Your task to perform on an android device: turn off data saver in the chrome app Image 0: 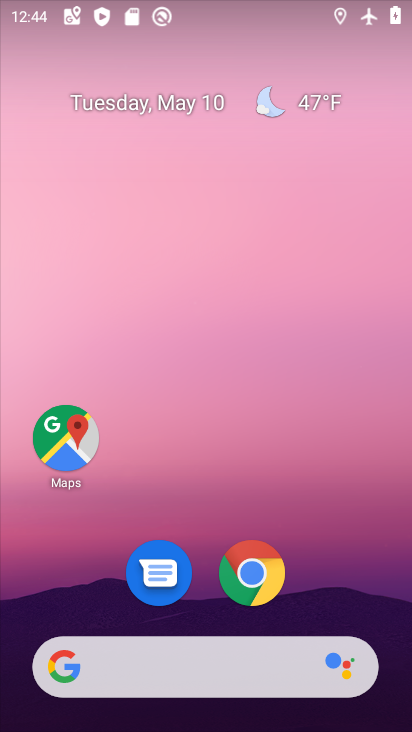
Step 0: click (329, 240)
Your task to perform on an android device: turn off data saver in the chrome app Image 1: 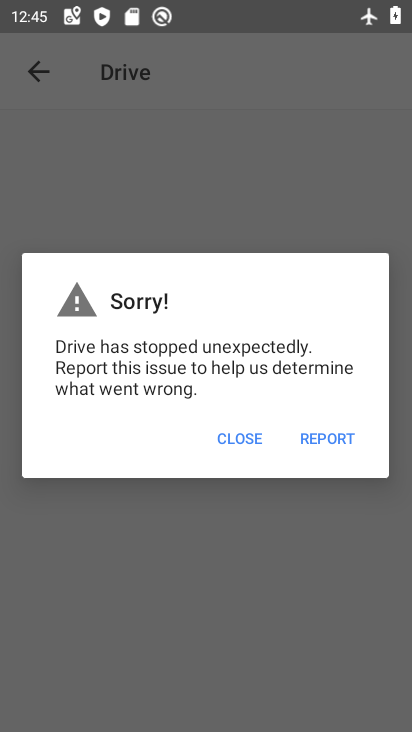
Step 1: press home button
Your task to perform on an android device: turn off data saver in the chrome app Image 2: 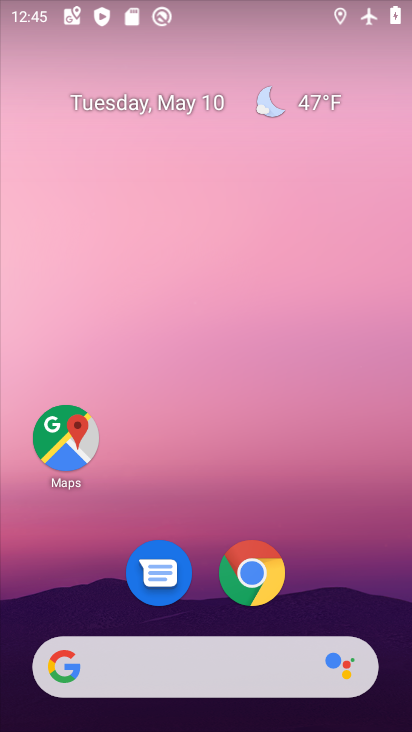
Step 2: drag from (187, 563) to (292, 221)
Your task to perform on an android device: turn off data saver in the chrome app Image 3: 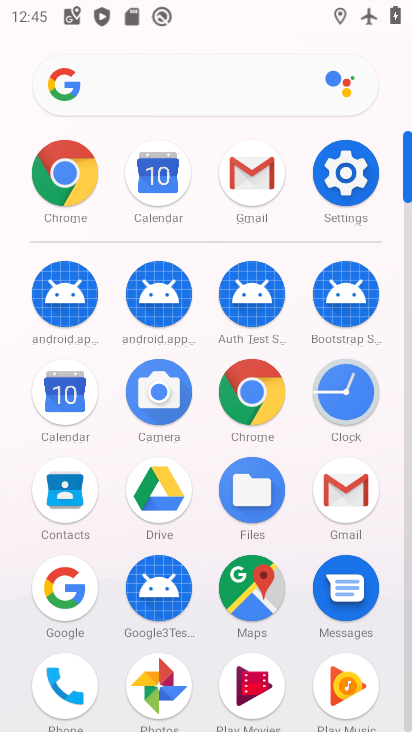
Step 3: click (257, 385)
Your task to perform on an android device: turn off data saver in the chrome app Image 4: 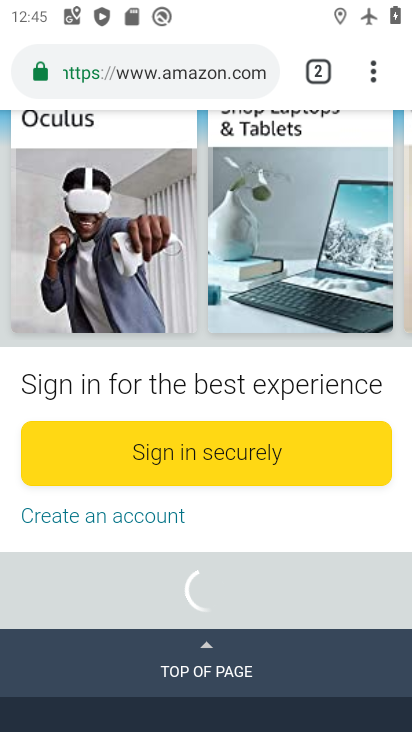
Step 4: click (375, 61)
Your task to perform on an android device: turn off data saver in the chrome app Image 5: 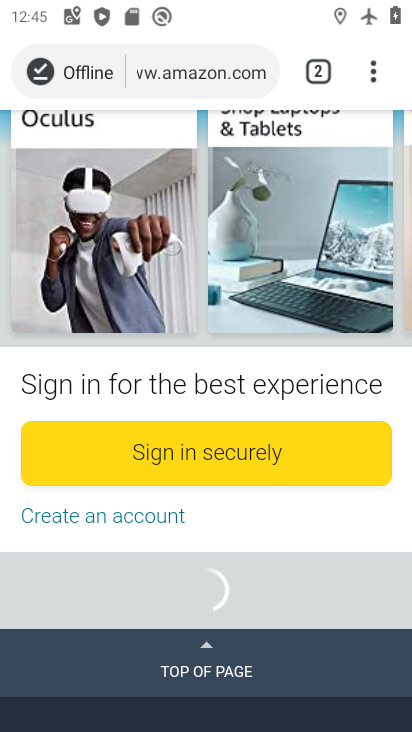
Step 5: drag from (380, 74) to (144, 549)
Your task to perform on an android device: turn off data saver in the chrome app Image 6: 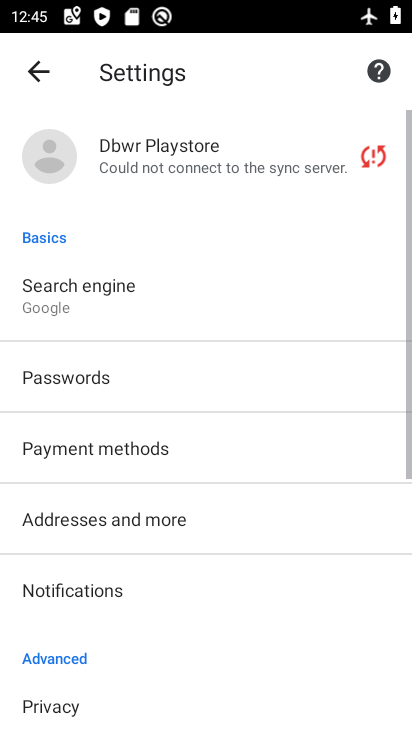
Step 6: drag from (181, 621) to (305, 192)
Your task to perform on an android device: turn off data saver in the chrome app Image 7: 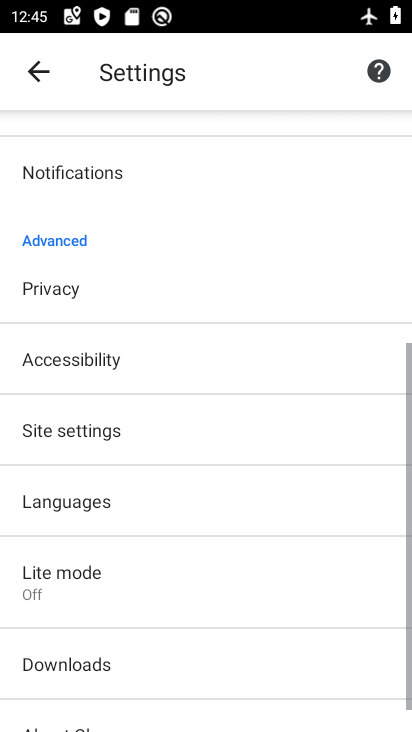
Step 7: drag from (171, 644) to (206, 357)
Your task to perform on an android device: turn off data saver in the chrome app Image 8: 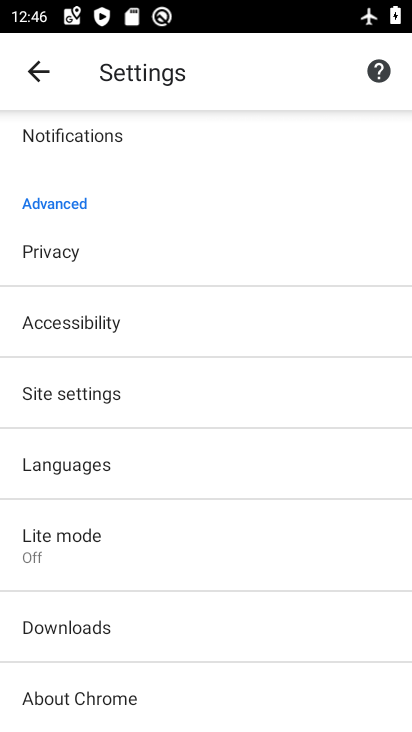
Step 8: click (107, 525)
Your task to perform on an android device: turn off data saver in the chrome app Image 9: 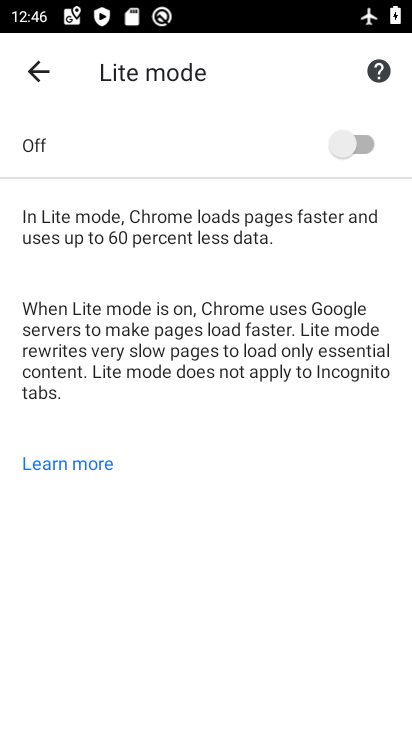
Step 9: task complete